Your task to perform on an android device: manage bookmarks in the chrome app Image 0: 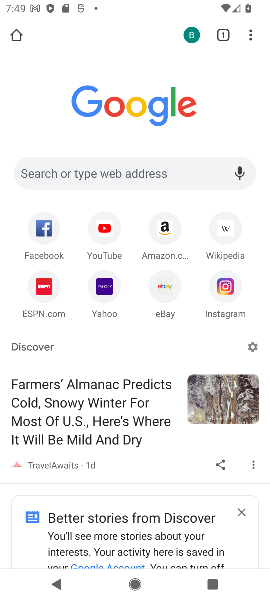
Step 0: click (246, 24)
Your task to perform on an android device: manage bookmarks in the chrome app Image 1: 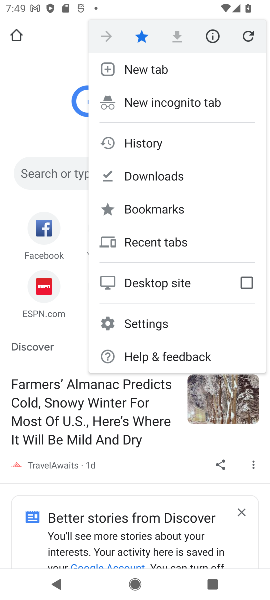
Step 1: click (147, 210)
Your task to perform on an android device: manage bookmarks in the chrome app Image 2: 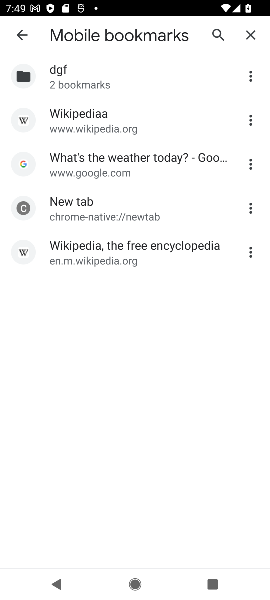
Step 2: click (252, 125)
Your task to perform on an android device: manage bookmarks in the chrome app Image 3: 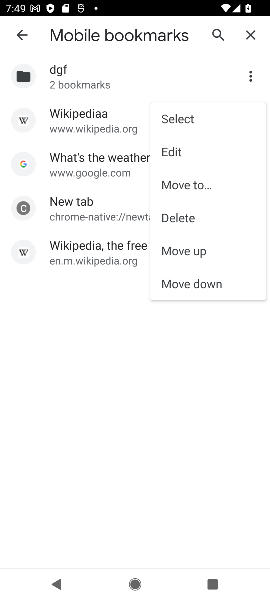
Step 3: click (249, 118)
Your task to perform on an android device: manage bookmarks in the chrome app Image 4: 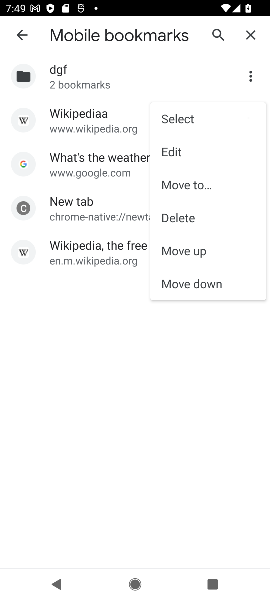
Step 4: click (177, 121)
Your task to perform on an android device: manage bookmarks in the chrome app Image 5: 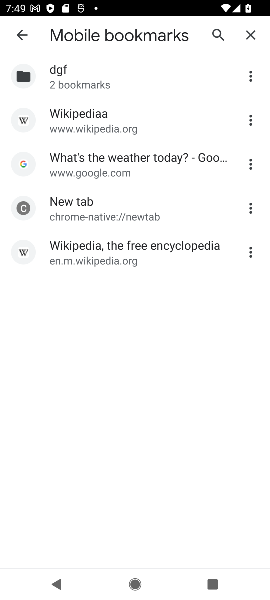
Step 5: click (250, 123)
Your task to perform on an android device: manage bookmarks in the chrome app Image 6: 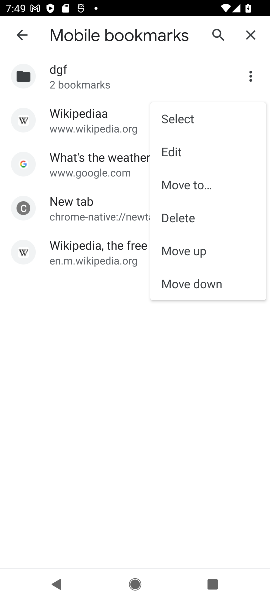
Step 6: click (194, 115)
Your task to perform on an android device: manage bookmarks in the chrome app Image 7: 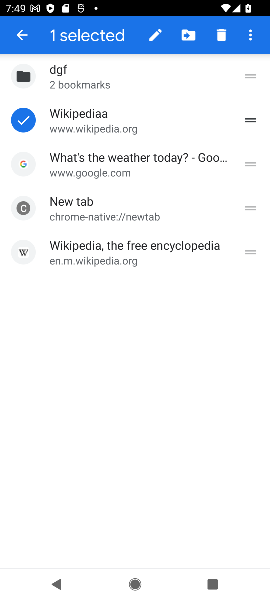
Step 7: click (167, 163)
Your task to perform on an android device: manage bookmarks in the chrome app Image 8: 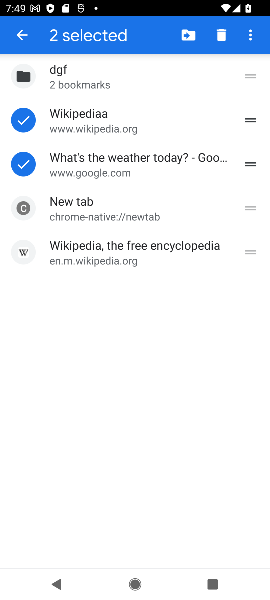
Step 8: click (134, 215)
Your task to perform on an android device: manage bookmarks in the chrome app Image 9: 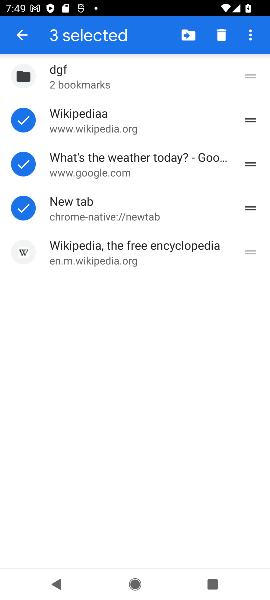
Step 9: click (107, 251)
Your task to perform on an android device: manage bookmarks in the chrome app Image 10: 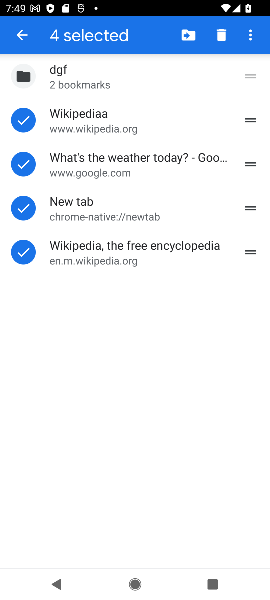
Step 10: click (188, 36)
Your task to perform on an android device: manage bookmarks in the chrome app Image 11: 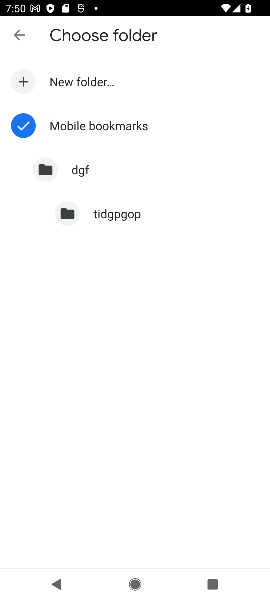
Step 11: click (89, 77)
Your task to perform on an android device: manage bookmarks in the chrome app Image 12: 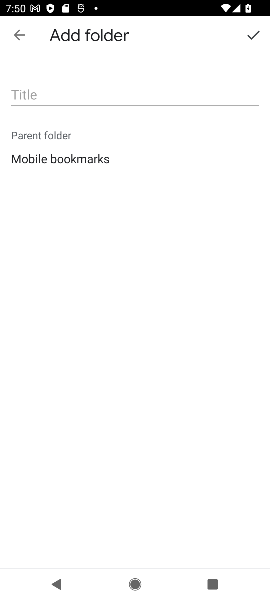
Step 12: click (17, 32)
Your task to perform on an android device: manage bookmarks in the chrome app Image 13: 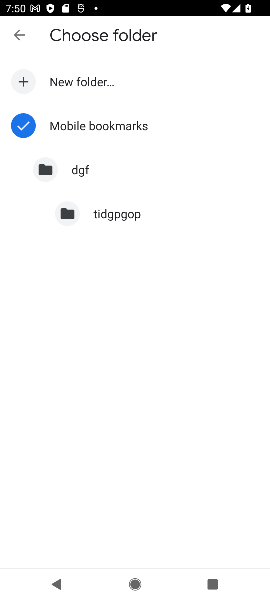
Step 13: click (82, 170)
Your task to perform on an android device: manage bookmarks in the chrome app Image 14: 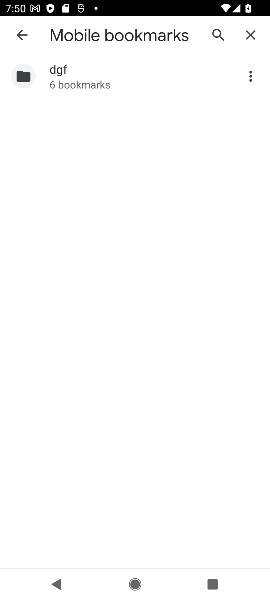
Step 14: click (119, 76)
Your task to perform on an android device: manage bookmarks in the chrome app Image 15: 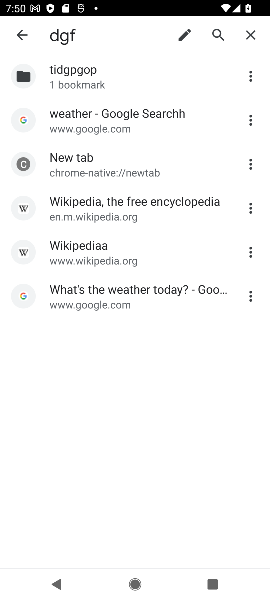
Step 15: task complete